Your task to perform on an android device: Open Google Maps Image 0: 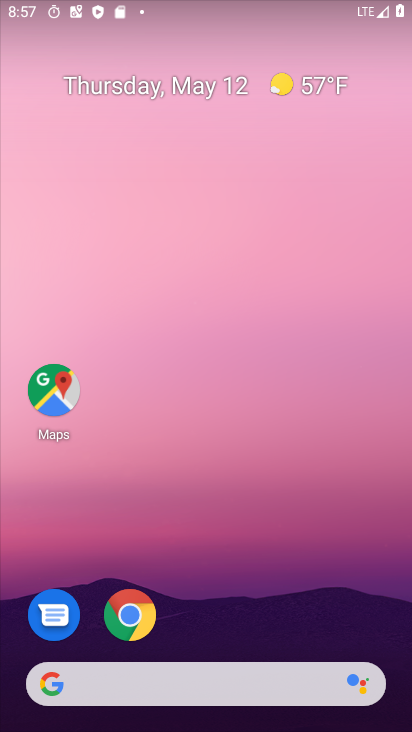
Step 0: drag from (236, 544) to (180, 26)
Your task to perform on an android device: Open Google Maps Image 1: 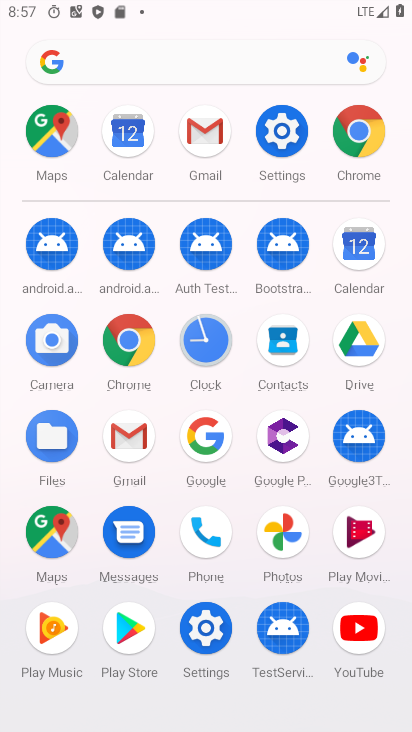
Step 1: click (47, 529)
Your task to perform on an android device: Open Google Maps Image 2: 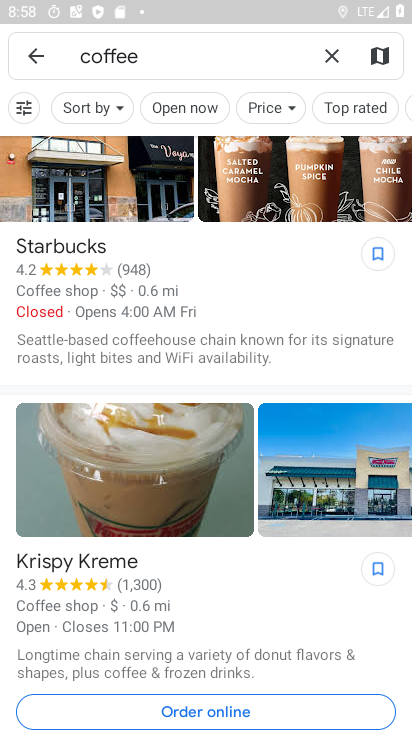
Step 2: click (31, 53)
Your task to perform on an android device: Open Google Maps Image 3: 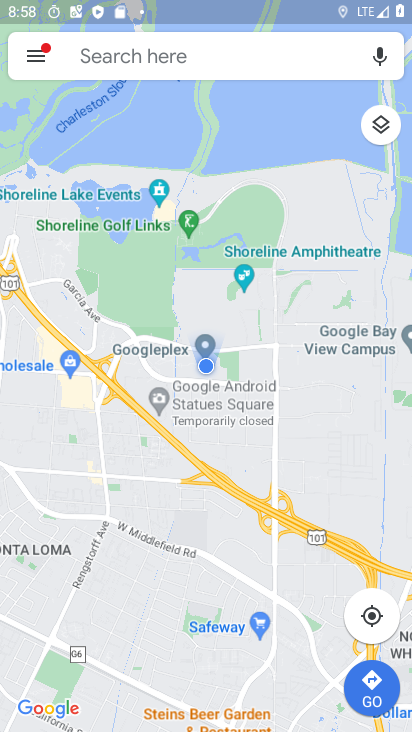
Step 3: task complete